Your task to perform on an android device: Open display settings Image 0: 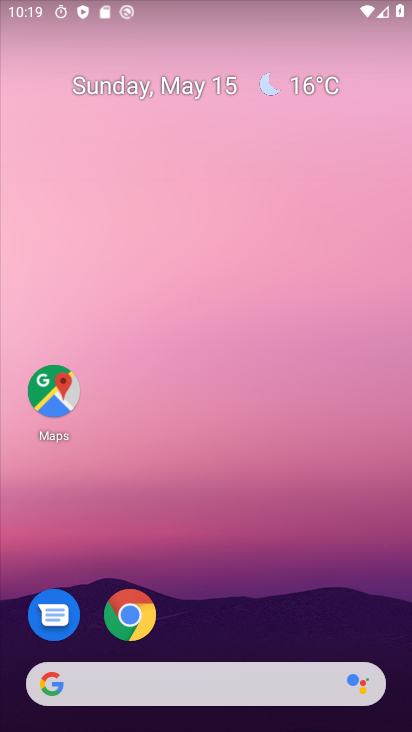
Step 0: drag from (294, 651) to (351, 198)
Your task to perform on an android device: Open display settings Image 1: 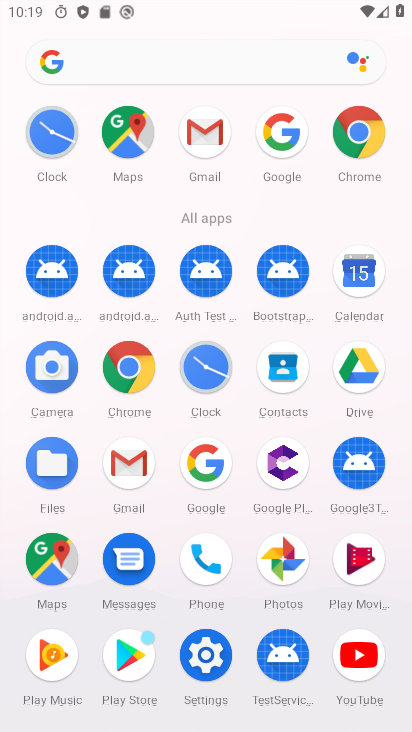
Step 1: click (202, 637)
Your task to perform on an android device: Open display settings Image 2: 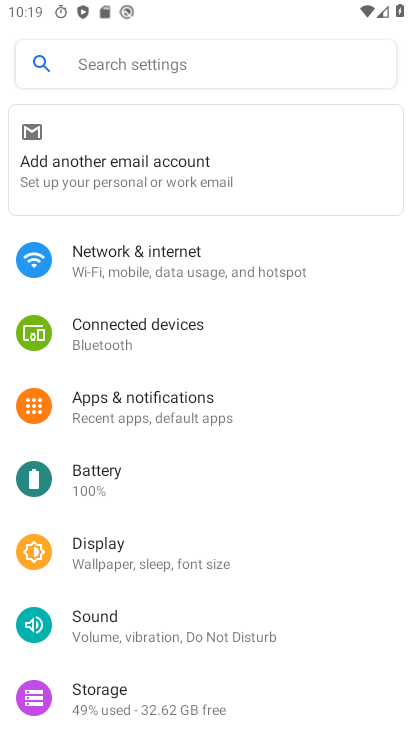
Step 2: click (192, 540)
Your task to perform on an android device: Open display settings Image 3: 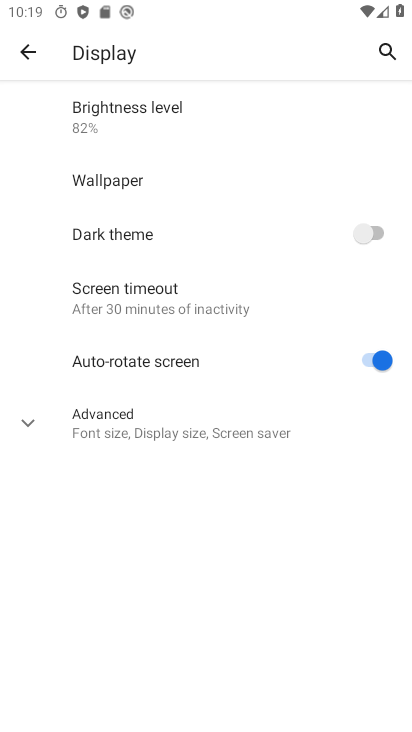
Step 3: task complete